Your task to perform on an android device: change the clock style Image 0: 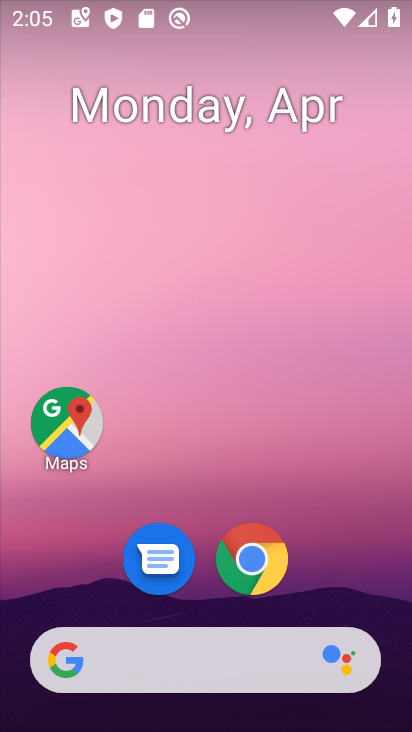
Step 0: drag from (358, 556) to (303, 219)
Your task to perform on an android device: change the clock style Image 1: 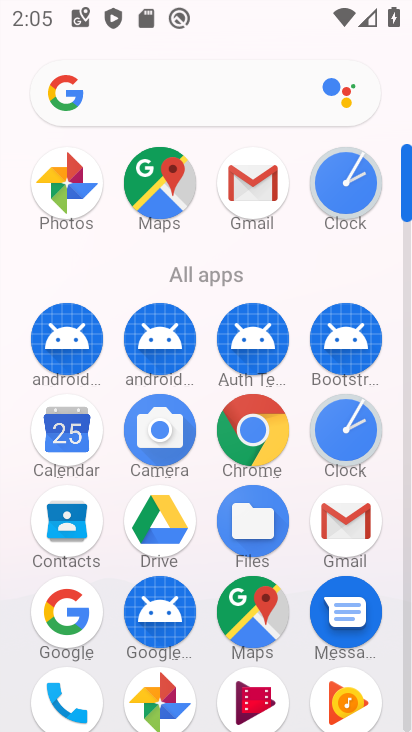
Step 1: click (352, 177)
Your task to perform on an android device: change the clock style Image 2: 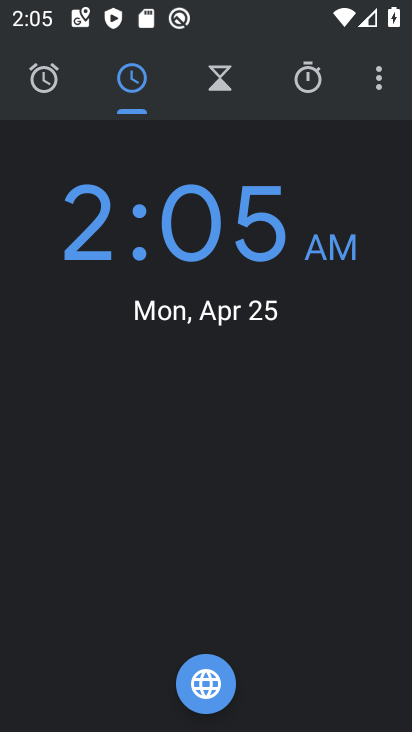
Step 2: click (386, 71)
Your task to perform on an android device: change the clock style Image 3: 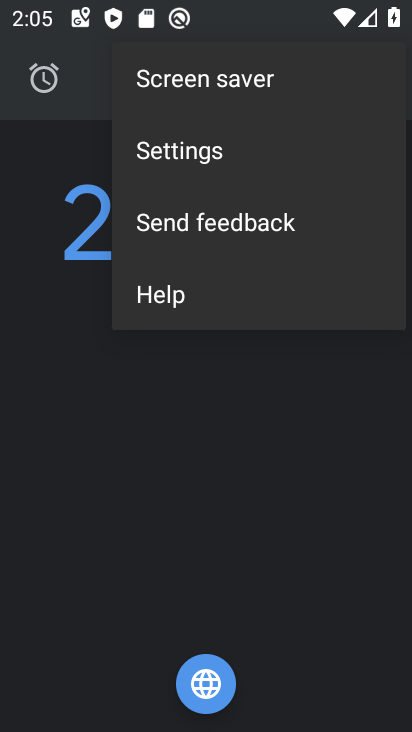
Step 3: click (276, 154)
Your task to perform on an android device: change the clock style Image 4: 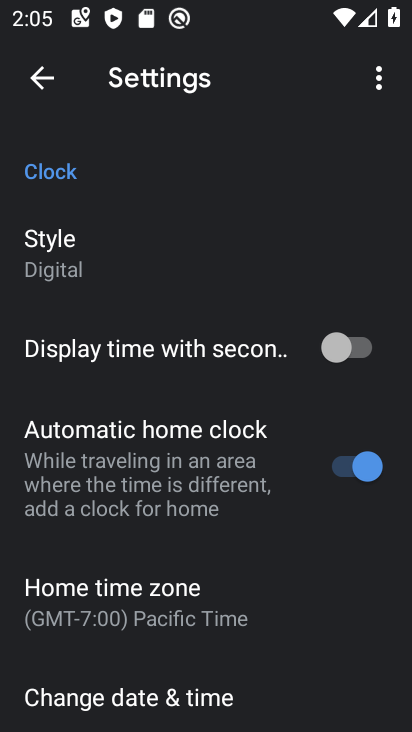
Step 4: click (163, 284)
Your task to perform on an android device: change the clock style Image 5: 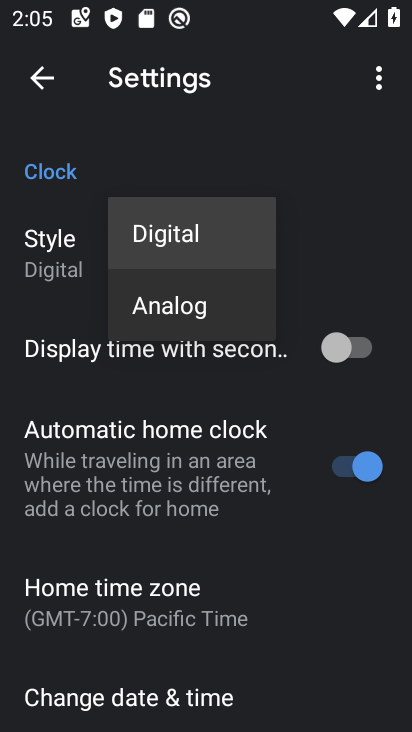
Step 5: click (205, 325)
Your task to perform on an android device: change the clock style Image 6: 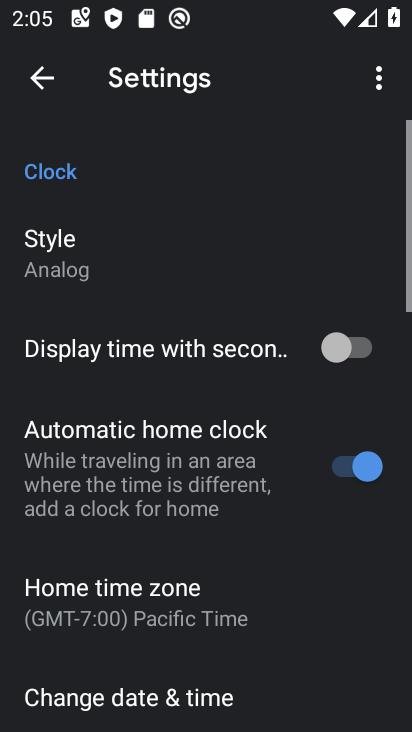
Step 6: task complete